Your task to perform on an android device: delete location history Image 0: 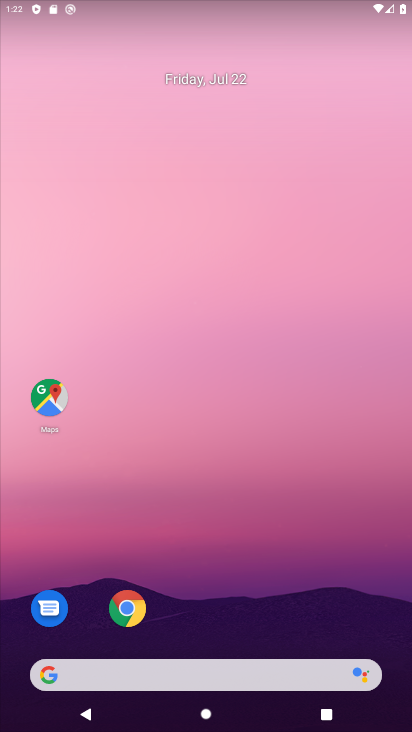
Step 0: drag from (394, 701) to (351, 117)
Your task to perform on an android device: delete location history Image 1: 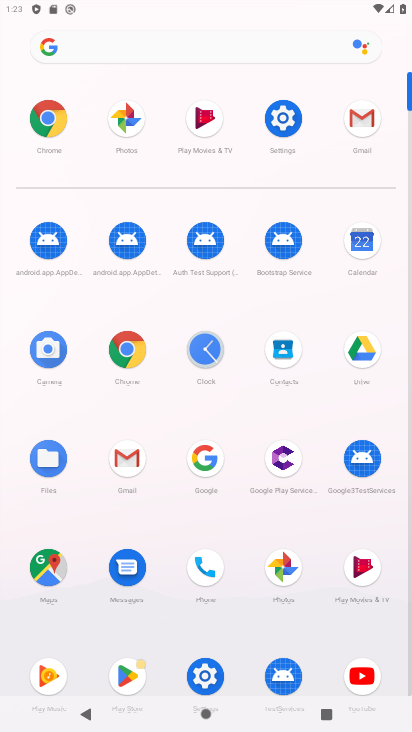
Step 1: click (287, 131)
Your task to perform on an android device: delete location history Image 2: 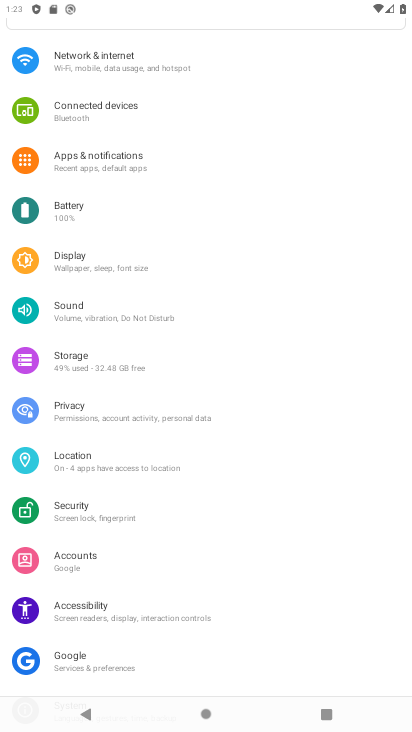
Step 2: press home button
Your task to perform on an android device: delete location history Image 3: 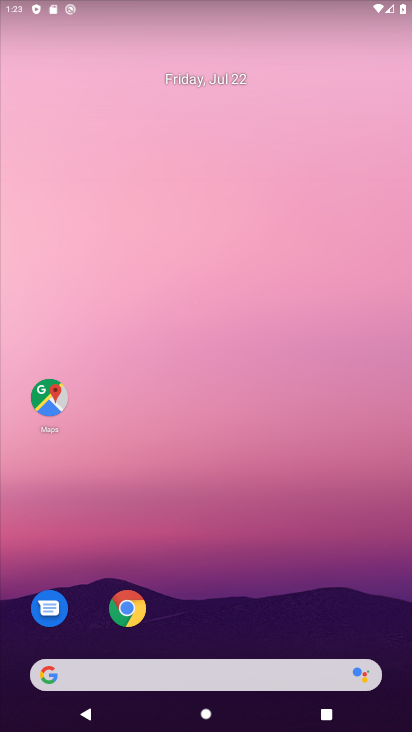
Step 3: drag from (360, 557) to (321, 161)
Your task to perform on an android device: delete location history Image 4: 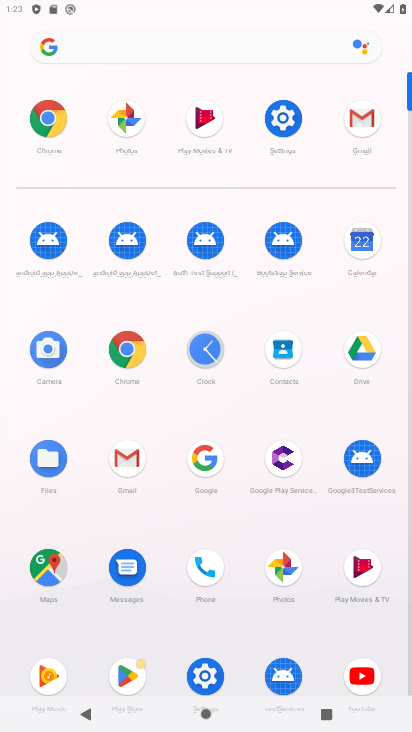
Step 4: click (279, 124)
Your task to perform on an android device: delete location history Image 5: 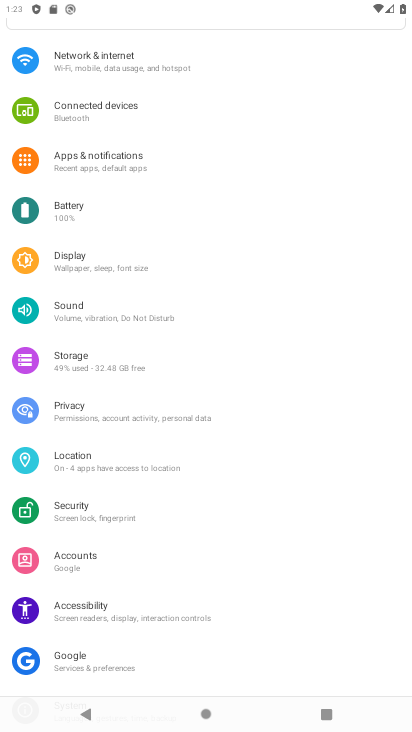
Step 5: click (73, 465)
Your task to perform on an android device: delete location history Image 6: 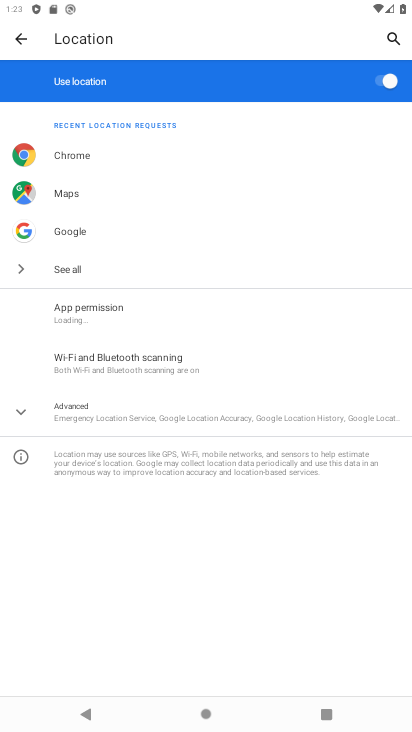
Step 6: click (24, 412)
Your task to perform on an android device: delete location history Image 7: 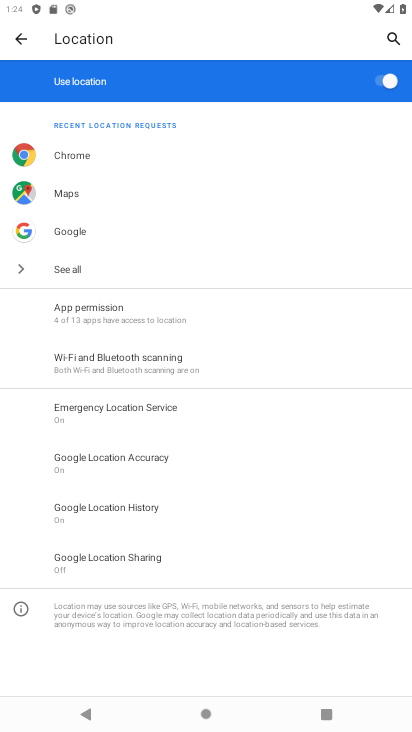
Step 7: task complete